Your task to perform on an android device: Open the phone app and click the voicemail tab. Image 0: 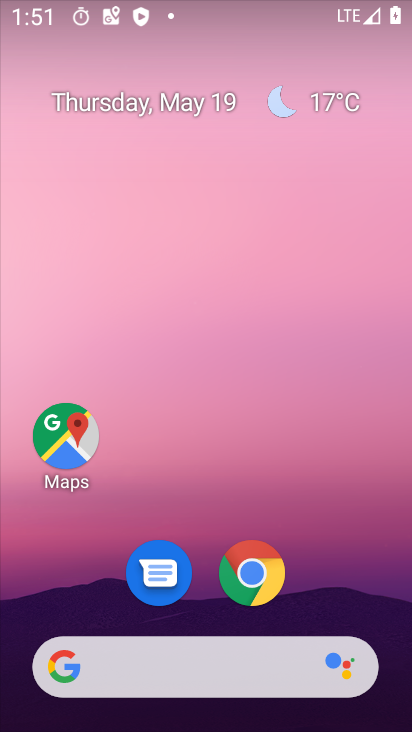
Step 0: drag from (180, 604) to (255, 130)
Your task to perform on an android device: Open the phone app and click the voicemail tab. Image 1: 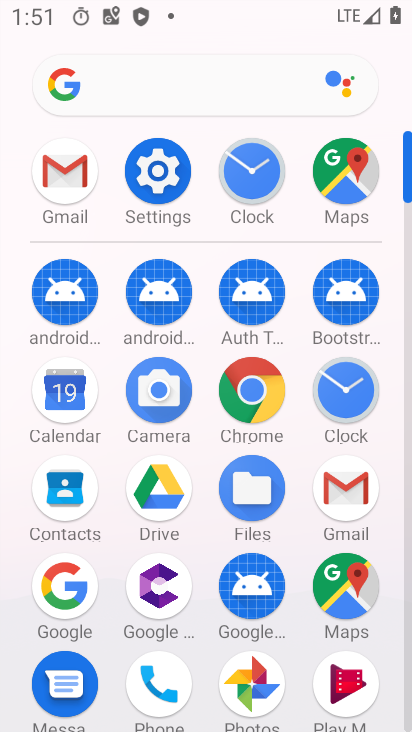
Step 1: drag from (196, 618) to (267, 173)
Your task to perform on an android device: Open the phone app and click the voicemail tab. Image 2: 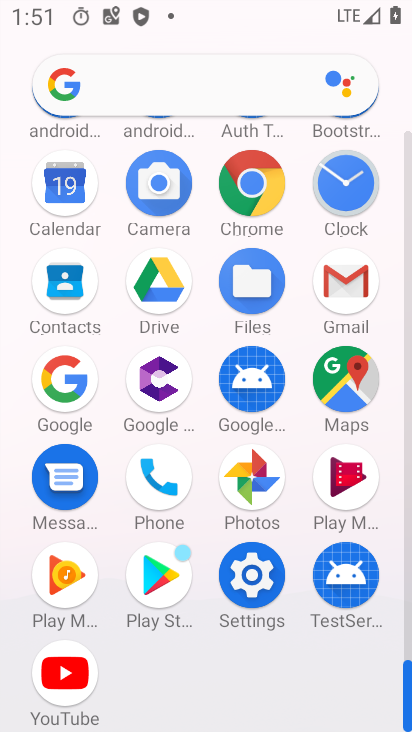
Step 2: click (156, 491)
Your task to perform on an android device: Open the phone app and click the voicemail tab. Image 3: 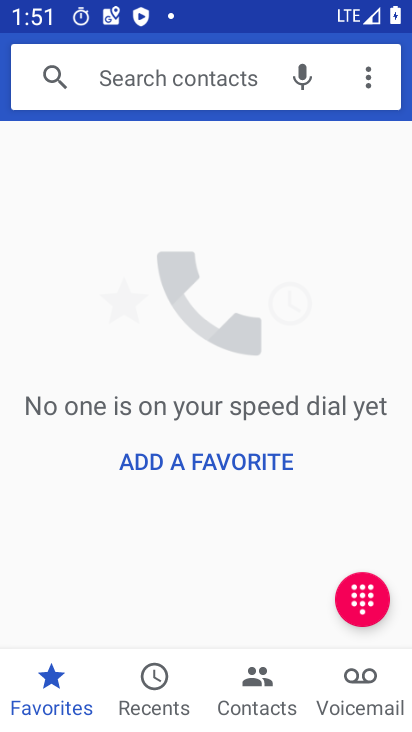
Step 3: click (360, 695)
Your task to perform on an android device: Open the phone app and click the voicemail tab. Image 4: 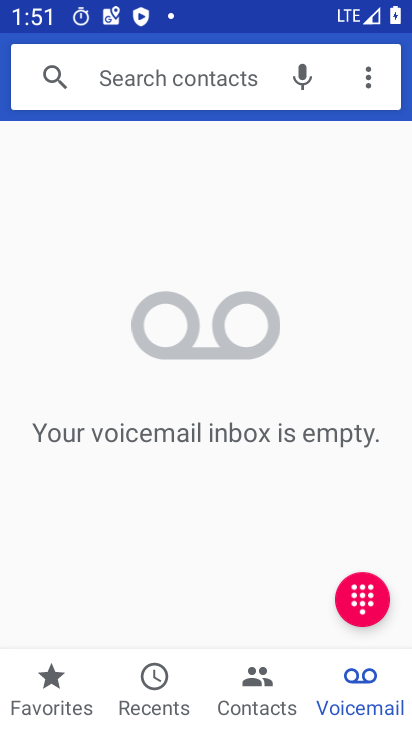
Step 4: task complete